Your task to perform on an android device: clear history in the chrome app Image 0: 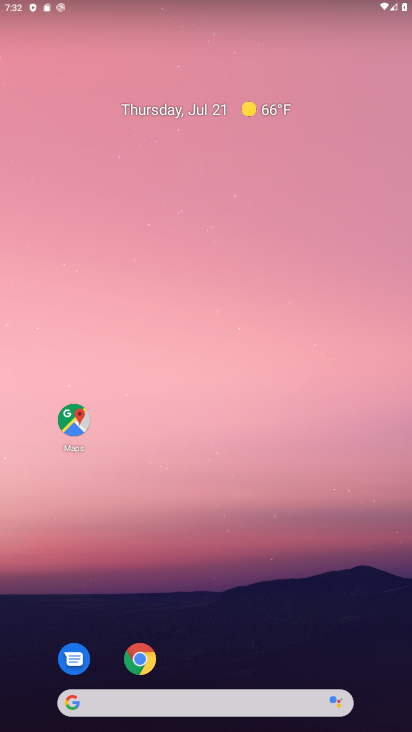
Step 0: drag from (210, 653) to (202, 46)
Your task to perform on an android device: clear history in the chrome app Image 1: 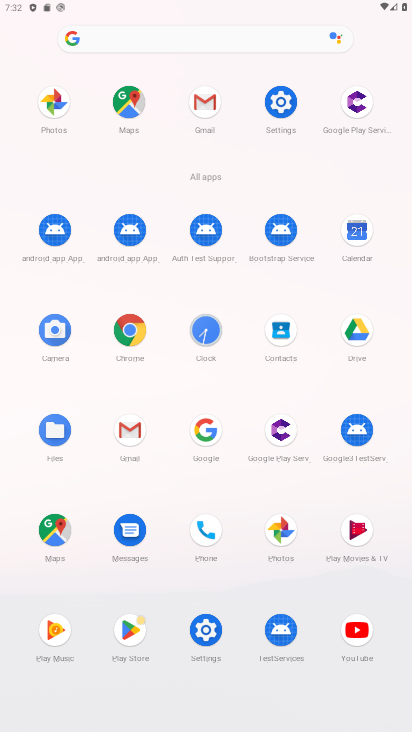
Step 1: click (125, 323)
Your task to perform on an android device: clear history in the chrome app Image 2: 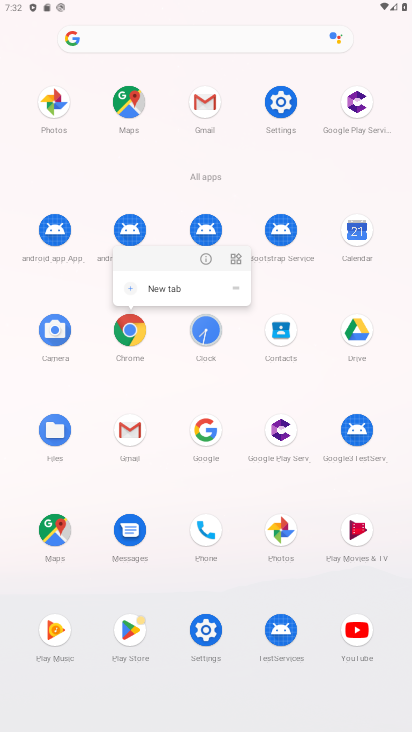
Step 2: click (201, 256)
Your task to perform on an android device: clear history in the chrome app Image 3: 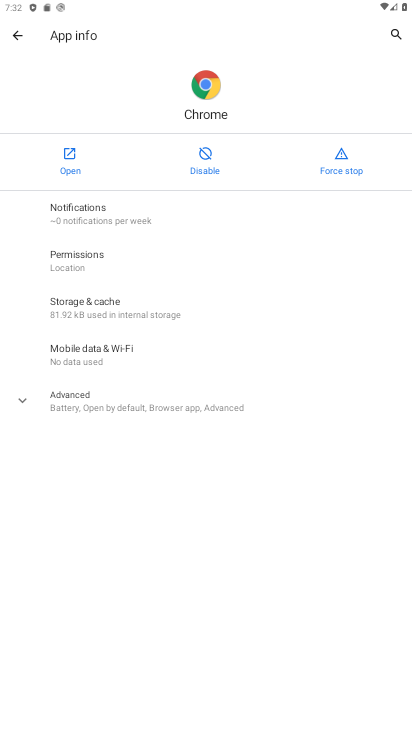
Step 3: click (66, 154)
Your task to perform on an android device: clear history in the chrome app Image 4: 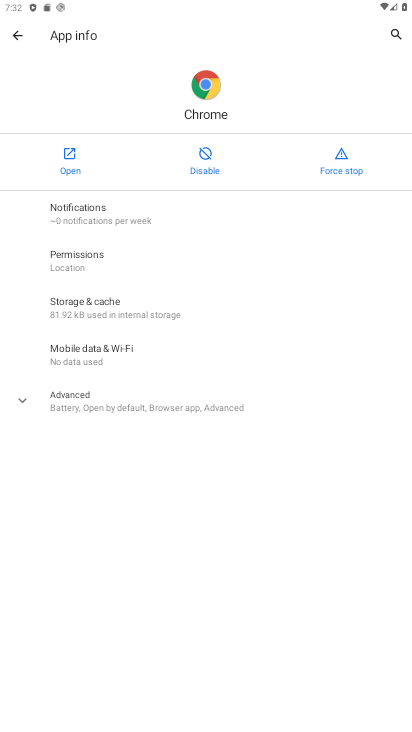
Step 4: click (66, 154)
Your task to perform on an android device: clear history in the chrome app Image 5: 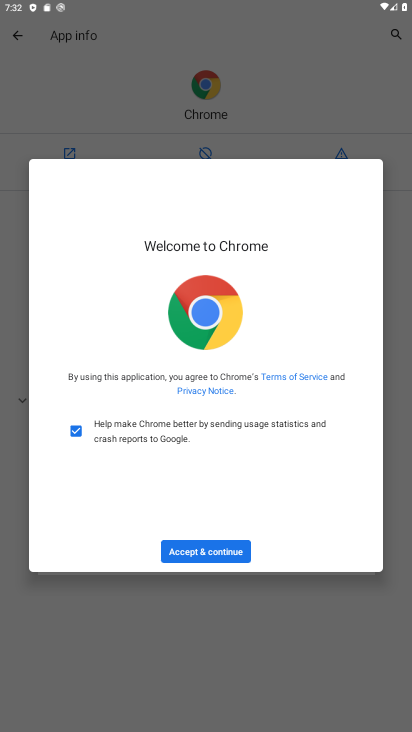
Step 5: click (200, 545)
Your task to perform on an android device: clear history in the chrome app Image 6: 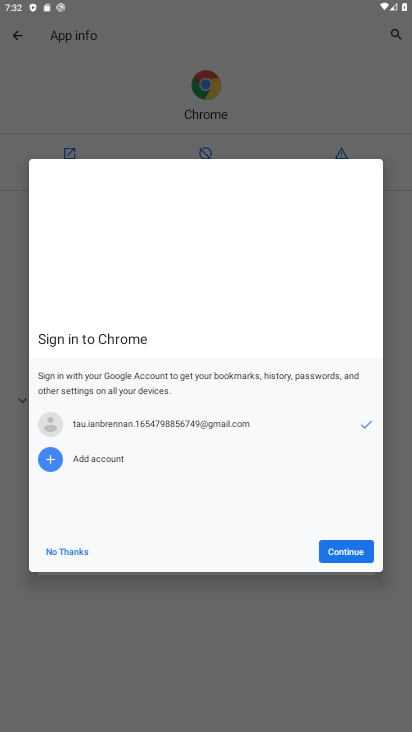
Step 6: click (352, 551)
Your task to perform on an android device: clear history in the chrome app Image 7: 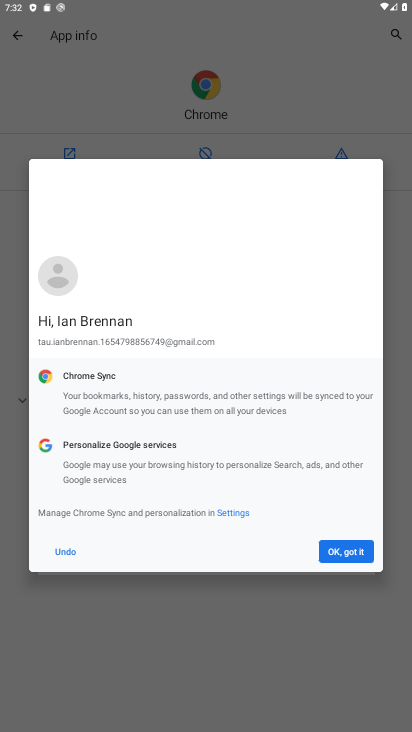
Step 7: click (338, 546)
Your task to perform on an android device: clear history in the chrome app Image 8: 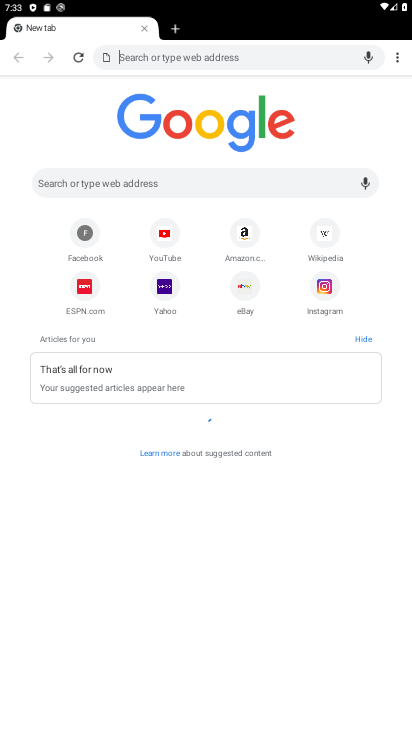
Step 8: drag from (395, 59) to (295, 184)
Your task to perform on an android device: clear history in the chrome app Image 9: 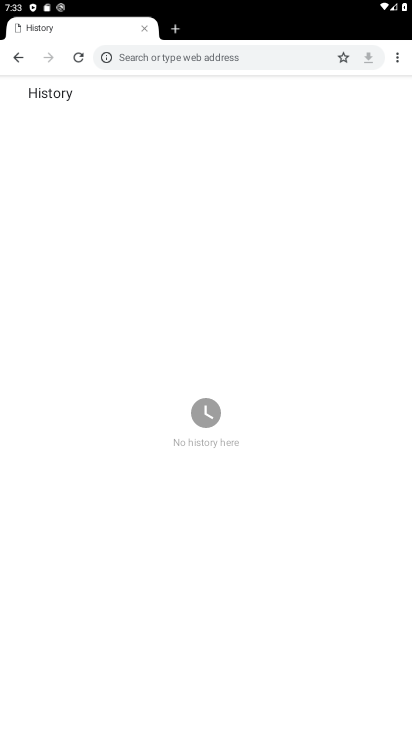
Step 9: drag from (172, 458) to (184, 219)
Your task to perform on an android device: clear history in the chrome app Image 10: 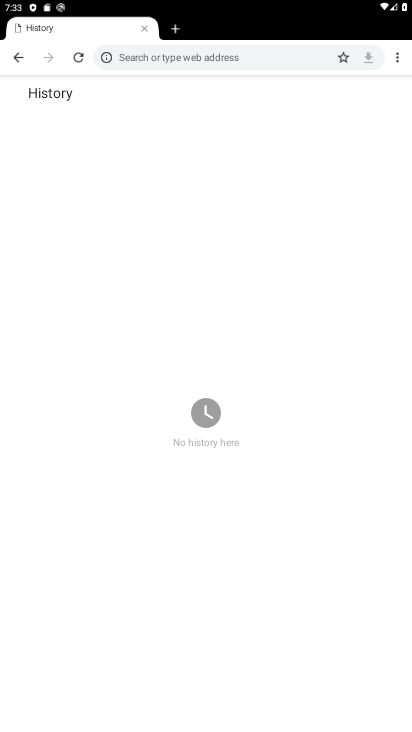
Step 10: drag from (255, 531) to (274, 271)
Your task to perform on an android device: clear history in the chrome app Image 11: 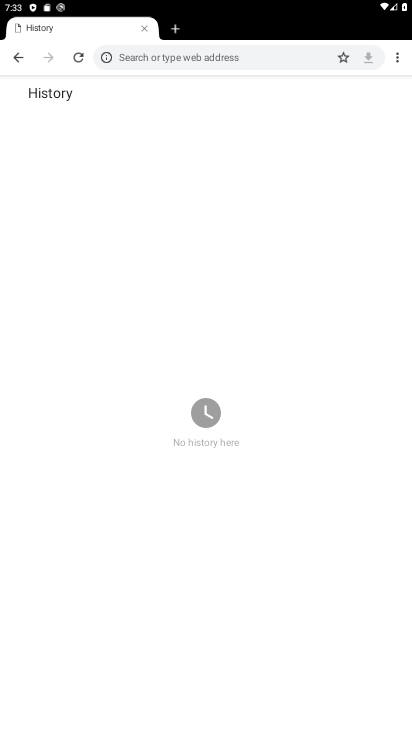
Step 11: drag from (222, 557) to (262, 298)
Your task to perform on an android device: clear history in the chrome app Image 12: 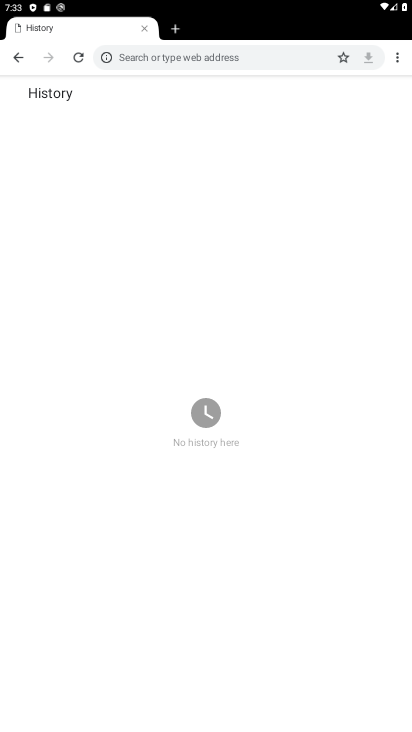
Step 12: click (262, 268)
Your task to perform on an android device: clear history in the chrome app Image 13: 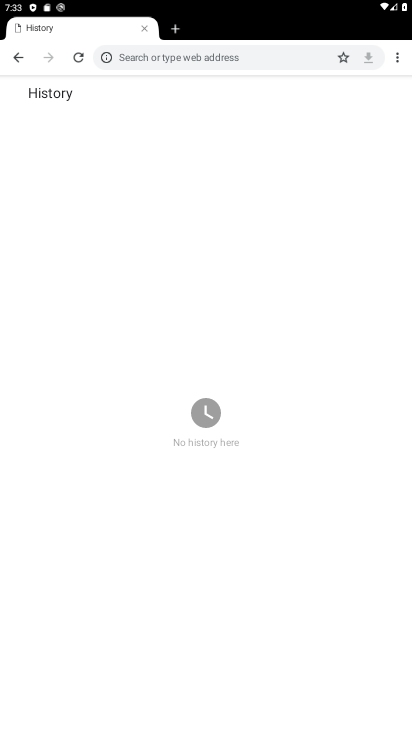
Step 13: task complete